Your task to perform on an android device: Go to sound settings Image 0: 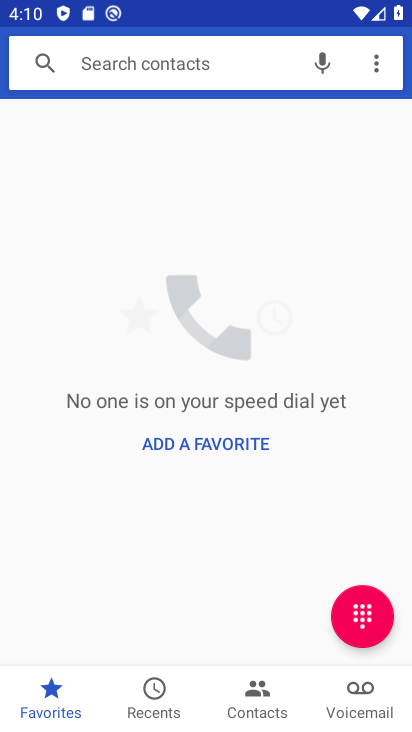
Step 0: press home button
Your task to perform on an android device: Go to sound settings Image 1: 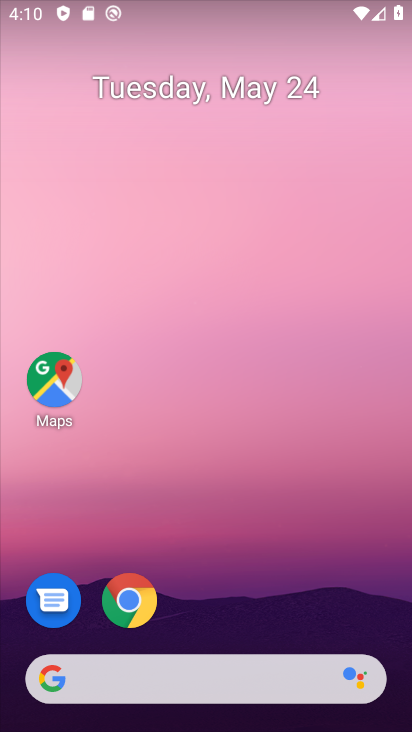
Step 1: drag from (230, 632) to (287, 0)
Your task to perform on an android device: Go to sound settings Image 2: 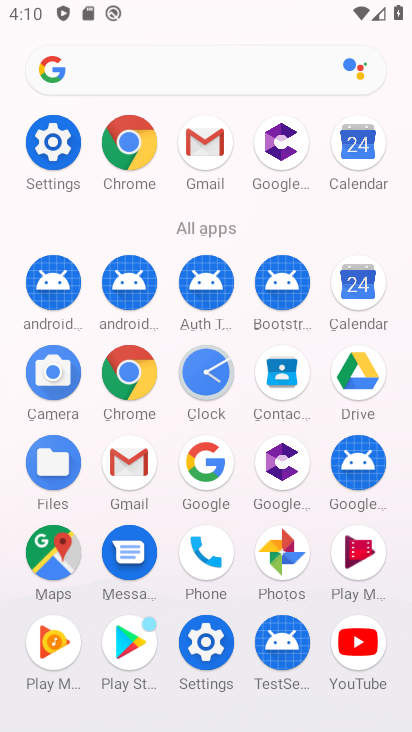
Step 2: click (52, 135)
Your task to perform on an android device: Go to sound settings Image 3: 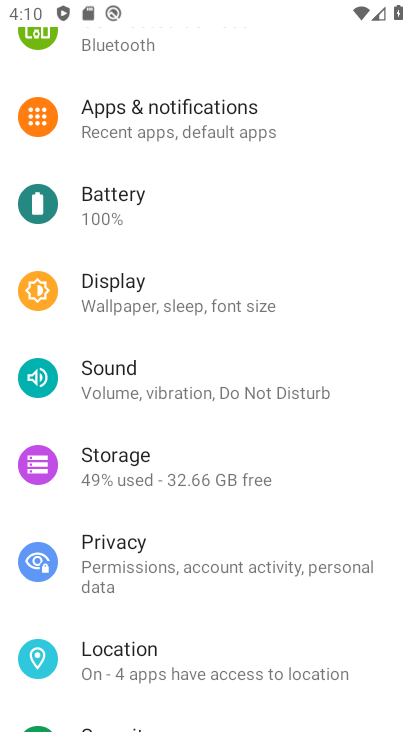
Step 3: click (115, 391)
Your task to perform on an android device: Go to sound settings Image 4: 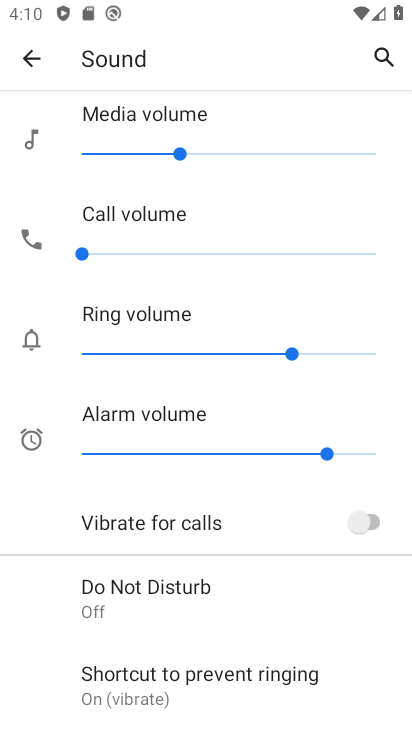
Step 4: task complete